Your task to perform on an android device: What's the weather today? Image 0: 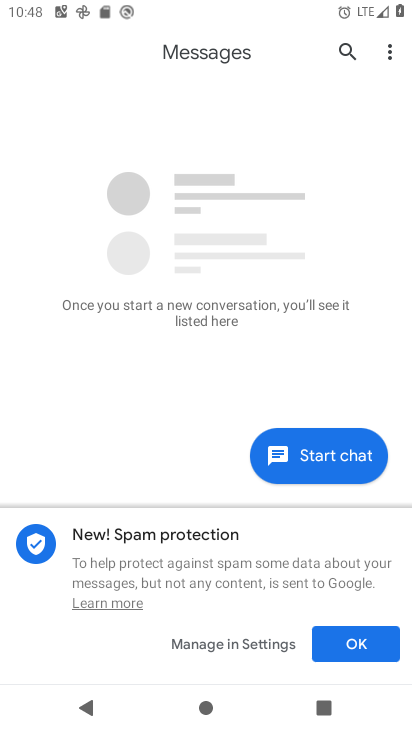
Step 0: press home button
Your task to perform on an android device: What's the weather today? Image 1: 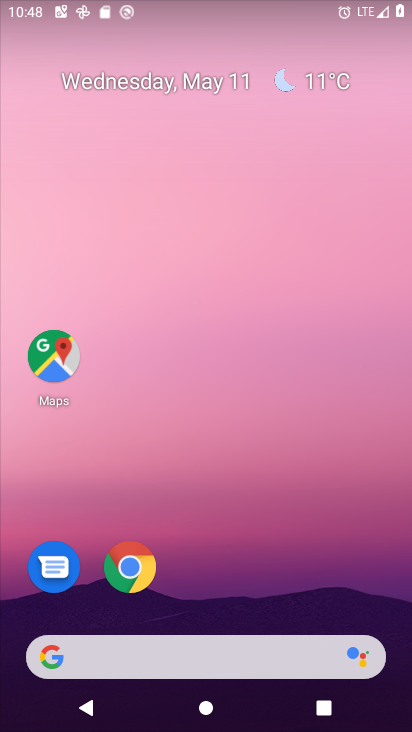
Step 1: click (319, 74)
Your task to perform on an android device: What's the weather today? Image 2: 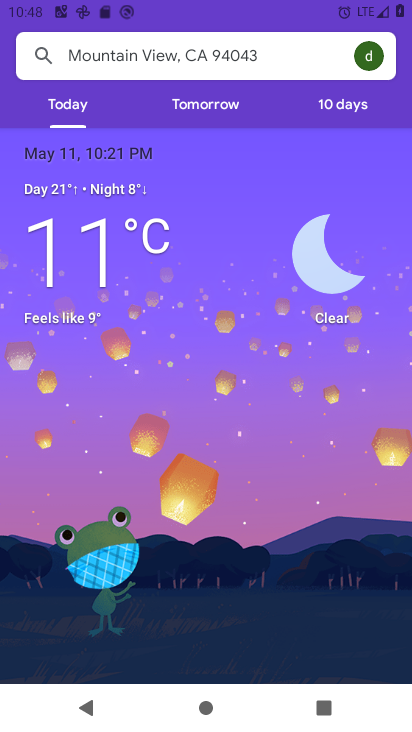
Step 2: task complete